Your task to perform on an android device: Search for pizza restaurants on Maps Image 0: 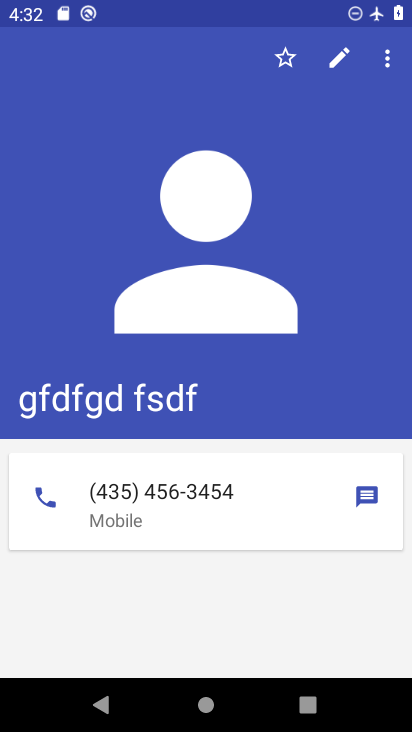
Step 0: press home button
Your task to perform on an android device: Search for pizza restaurants on Maps Image 1: 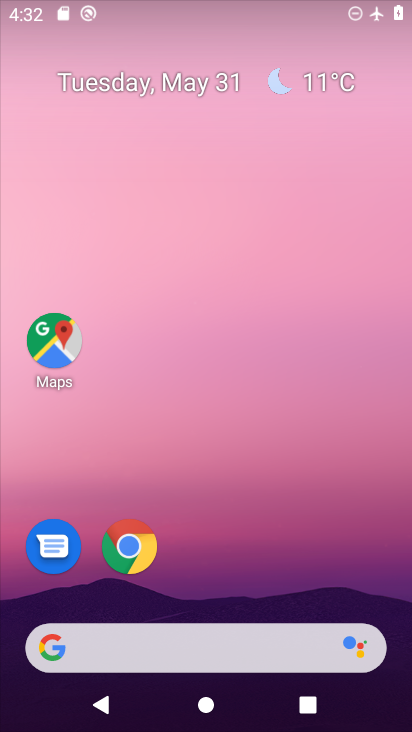
Step 1: click (74, 348)
Your task to perform on an android device: Search for pizza restaurants on Maps Image 2: 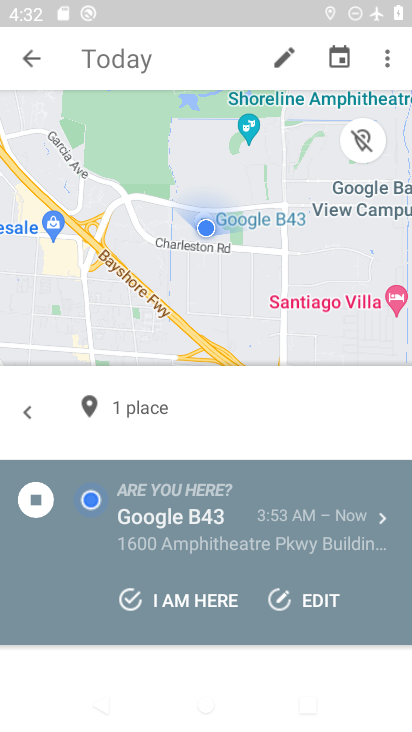
Step 2: click (17, 58)
Your task to perform on an android device: Search for pizza restaurants on Maps Image 3: 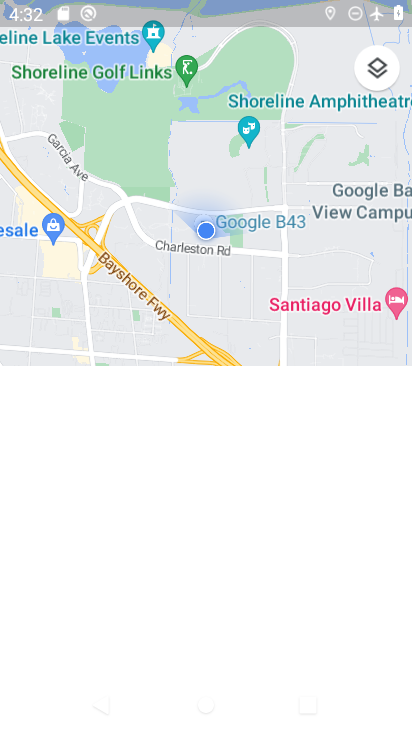
Step 3: click (33, 58)
Your task to perform on an android device: Search for pizza restaurants on Maps Image 4: 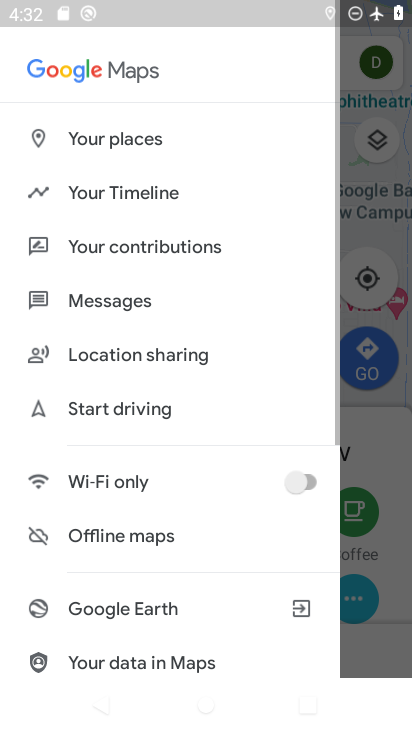
Step 4: click (371, 191)
Your task to perform on an android device: Search for pizza restaurants on Maps Image 5: 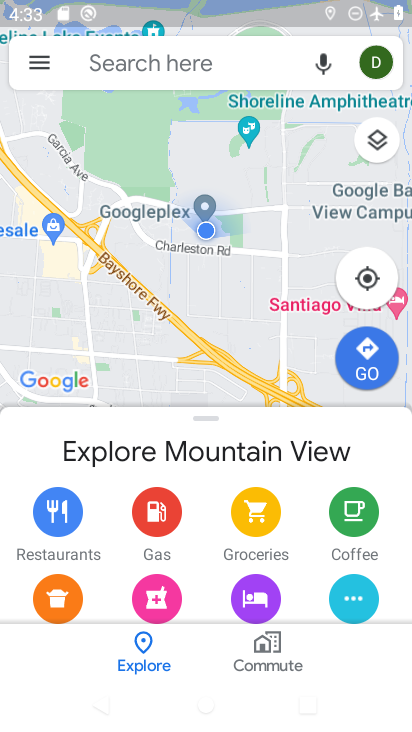
Step 5: click (250, 61)
Your task to perform on an android device: Search for pizza restaurants on Maps Image 6: 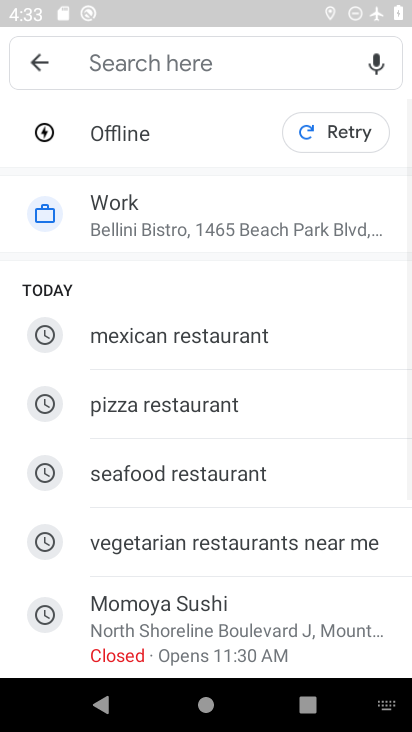
Step 6: click (175, 395)
Your task to perform on an android device: Search for pizza restaurants on Maps Image 7: 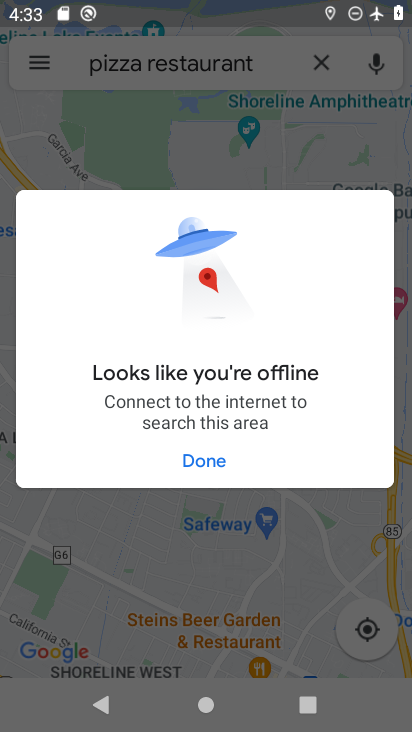
Step 7: click (210, 471)
Your task to perform on an android device: Search for pizza restaurants on Maps Image 8: 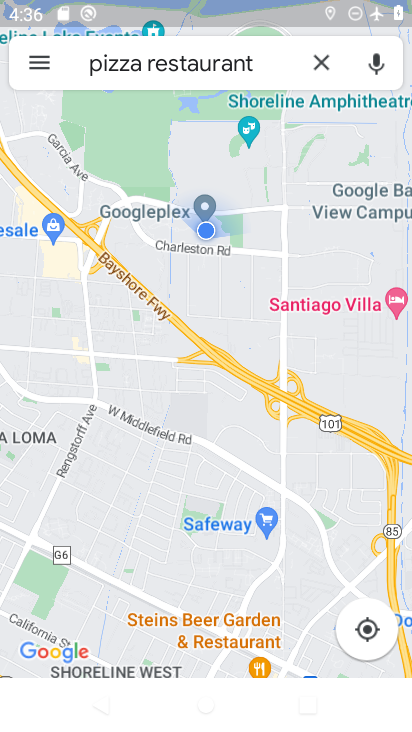
Step 8: task complete